Your task to perform on an android device: toggle pop-ups in chrome Image 0: 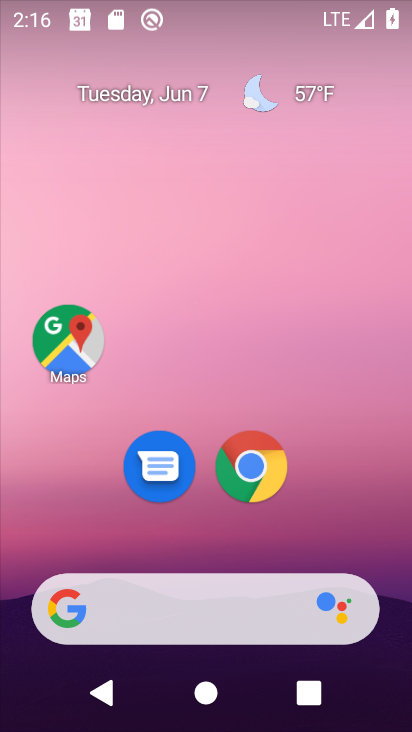
Step 0: click (250, 459)
Your task to perform on an android device: toggle pop-ups in chrome Image 1: 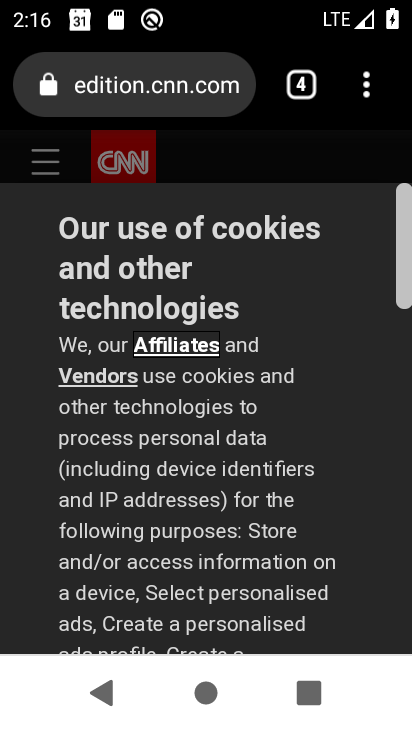
Step 1: drag from (374, 76) to (87, 510)
Your task to perform on an android device: toggle pop-ups in chrome Image 2: 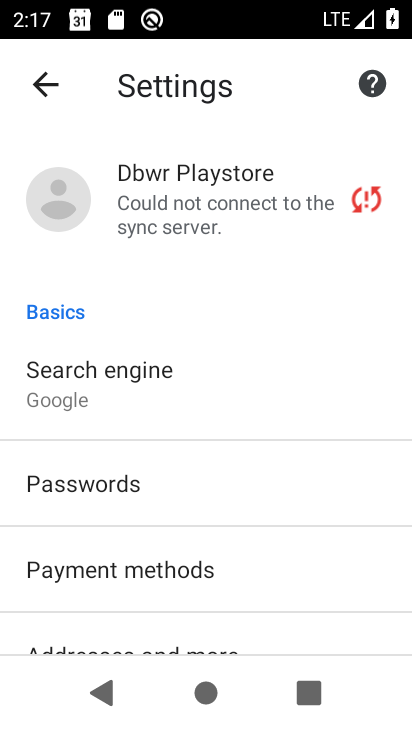
Step 2: drag from (116, 602) to (240, 156)
Your task to perform on an android device: toggle pop-ups in chrome Image 3: 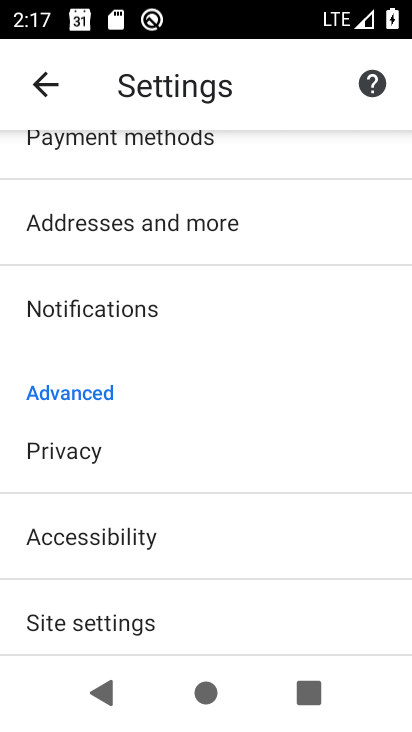
Step 3: click (95, 600)
Your task to perform on an android device: toggle pop-ups in chrome Image 4: 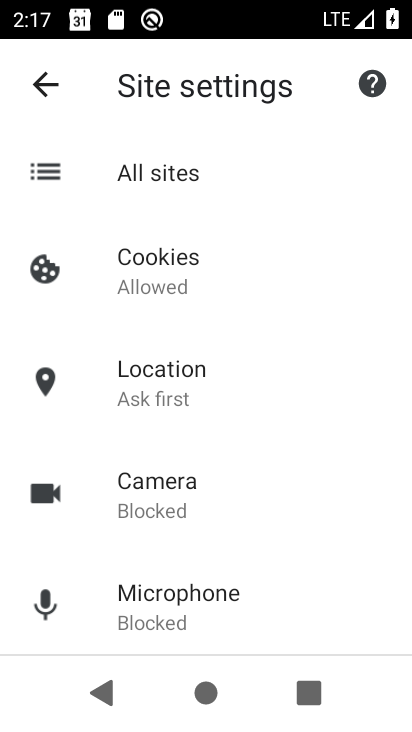
Step 4: drag from (153, 589) to (237, 72)
Your task to perform on an android device: toggle pop-ups in chrome Image 5: 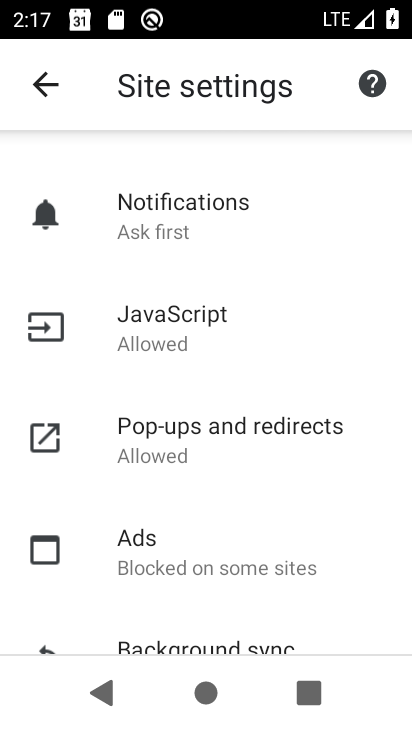
Step 5: click (172, 437)
Your task to perform on an android device: toggle pop-ups in chrome Image 6: 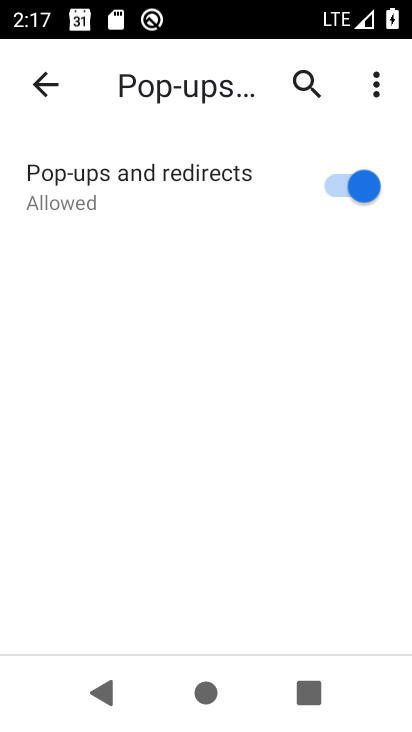
Step 6: click (362, 190)
Your task to perform on an android device: toggle pop-ups in chrome Image 7: 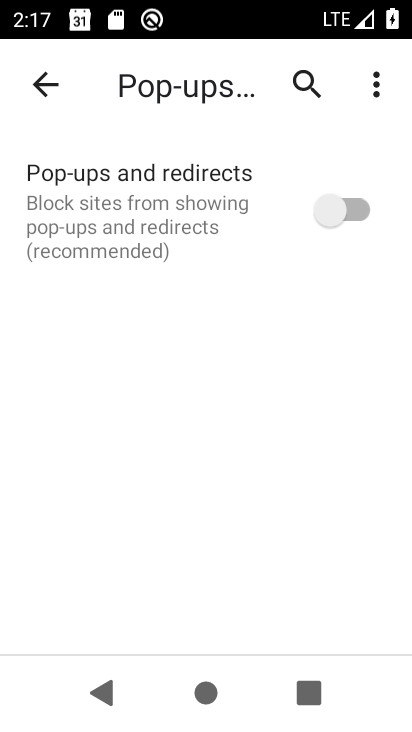
Step 7: task complete